Your task to perform on an android device: turn on the 24-hour format for clock Image 0: 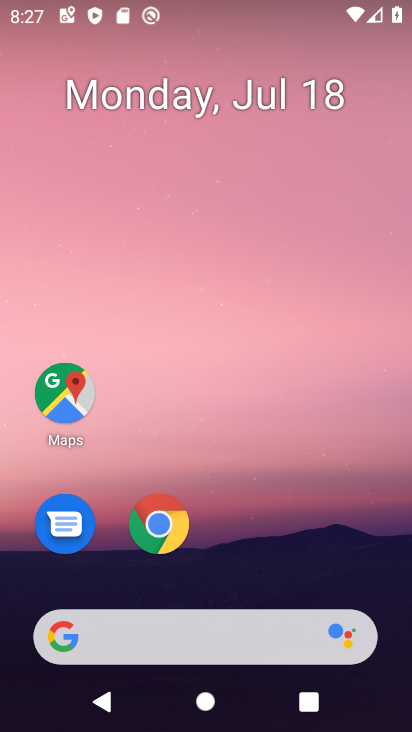
Step 0: drag from (248, 397) to (234, 32)
Your task to perform on an android device: turn on the 24-hour format for clock Image 1: 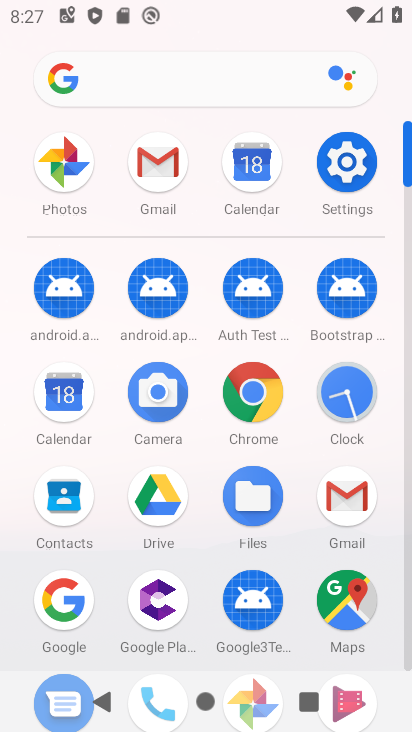
Step 1: click (354, 402)
Your task to perform on an android device: turn on the 24-hour format for clock Image 2: 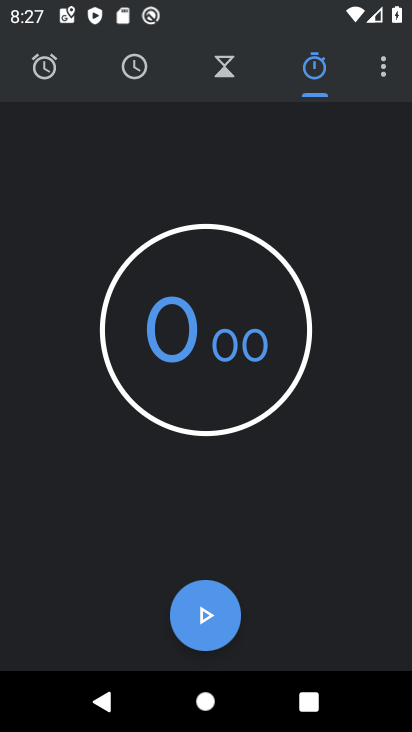
Step 2: click (386, 68)
Your task to perform on an android device: turn on the 24-hour format for clock Image 3: 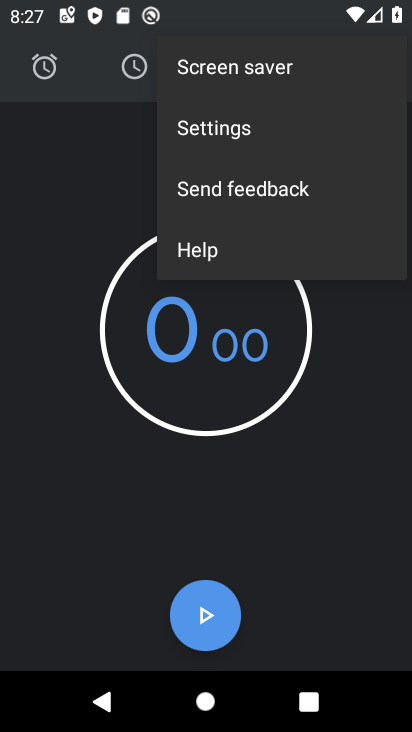
Step 3: click (279, 128)
Your task to perform on an android device: turn on the 24-hour format for clock Image 4: 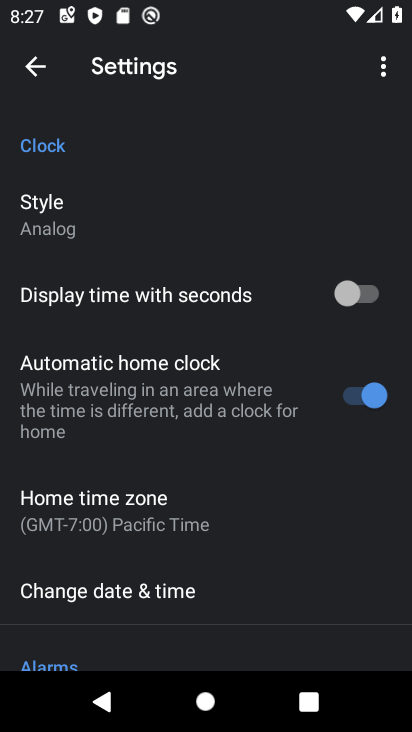
Step 4: click (205, 593)
Your task to perform on an android device: turn on the 24-hour format for clock Image 5: 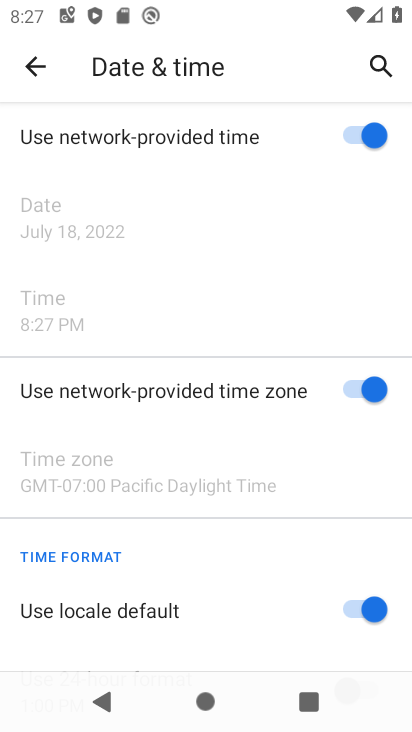
Step 5: drag from (235, 520) to (223, 316)
Your task to perform on an android device: turn on the 24-hour format for clock Image 6: 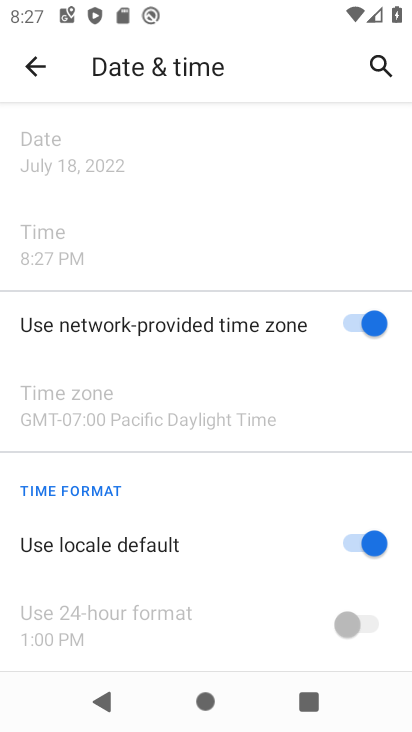
Step 6: click (353, 537)
Your task to perform on an android device: turn on the 24-hour format for clock Image 7: 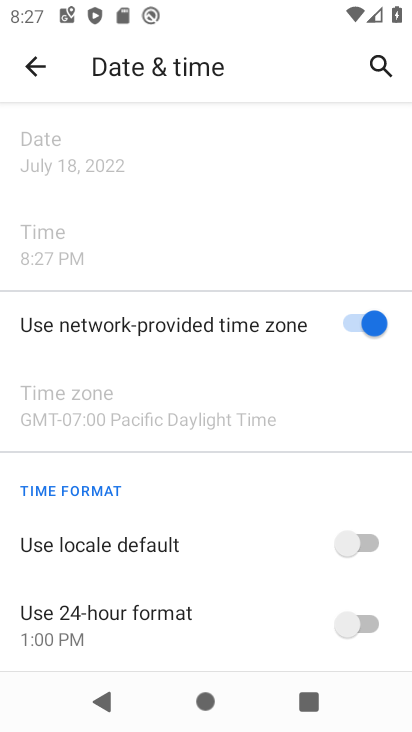
Step 7: click (371, 620)
Your task to perform on an android device: turn on the 24-hour format for clock Image 8: 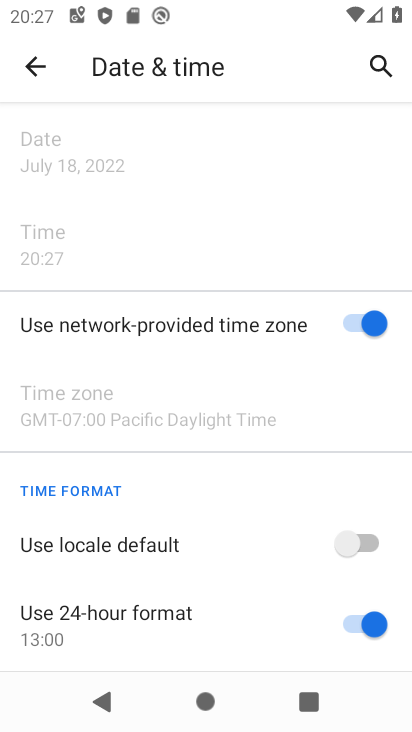
Step 8: task complete